Your task to perform on an android device: open app "Walmart Shopping & Grocery" (install if not already installed) Image 0: 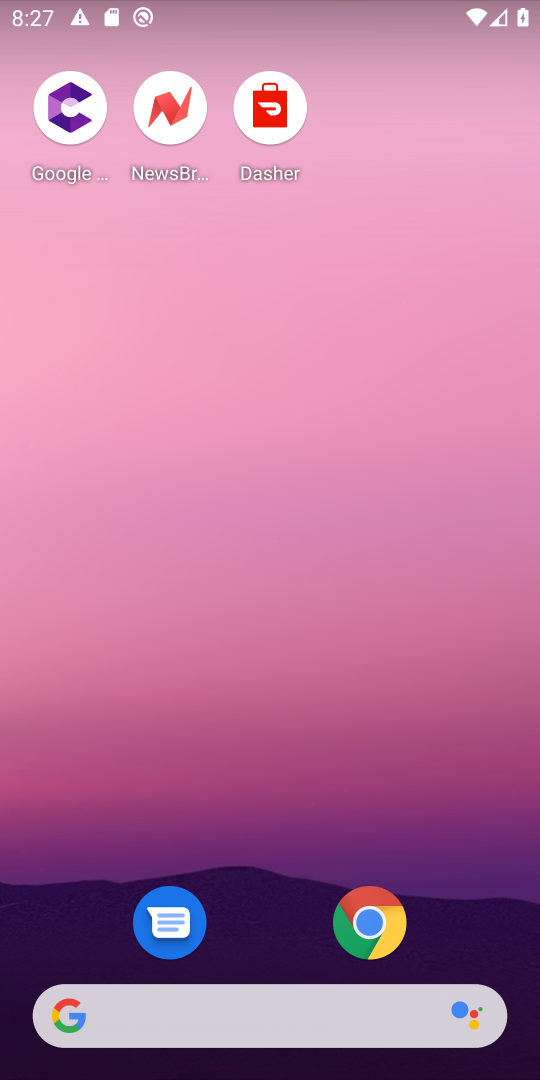
Step 0: drag from (287, 1051) to (298, 196)
Your task to perform on an android device: open app "Walmart Shopping & Grocery" (install if not already installed) Image 1: 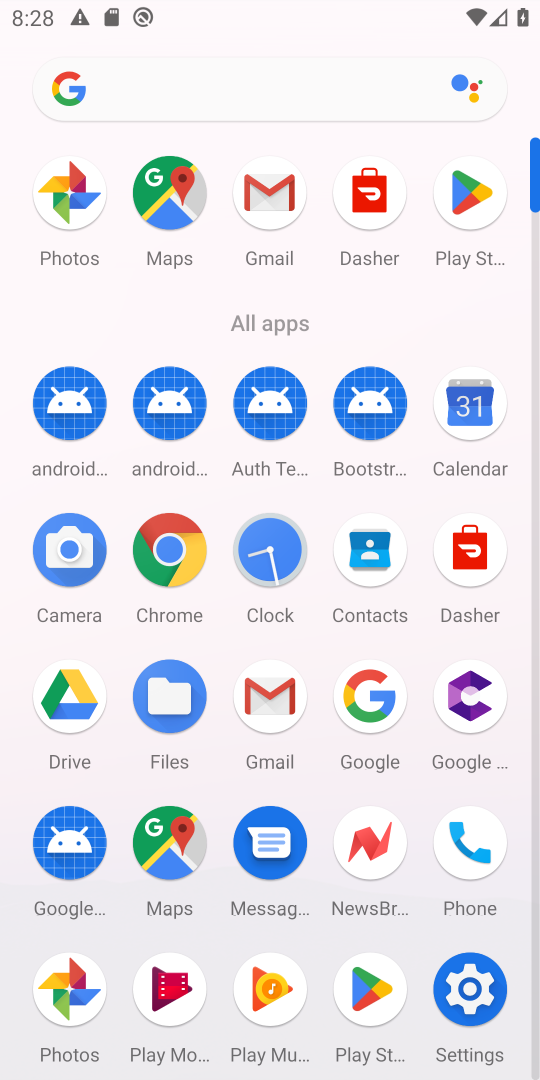
Step 1: click (373, 984)
Your task to perform on an android device: open app "Walmart Shopping & Grocery" (install if not already installed) Image 2: 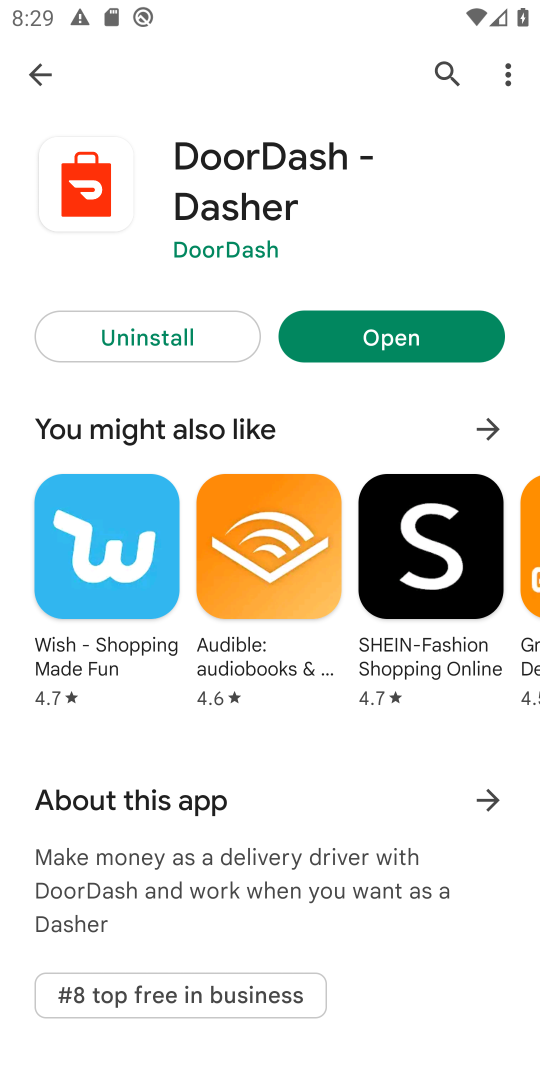
Step 2: click (443, 62)
Your task to perform on an android device: open app "Walmart Shopping & Grocery" (install if not already installed) Image 3: 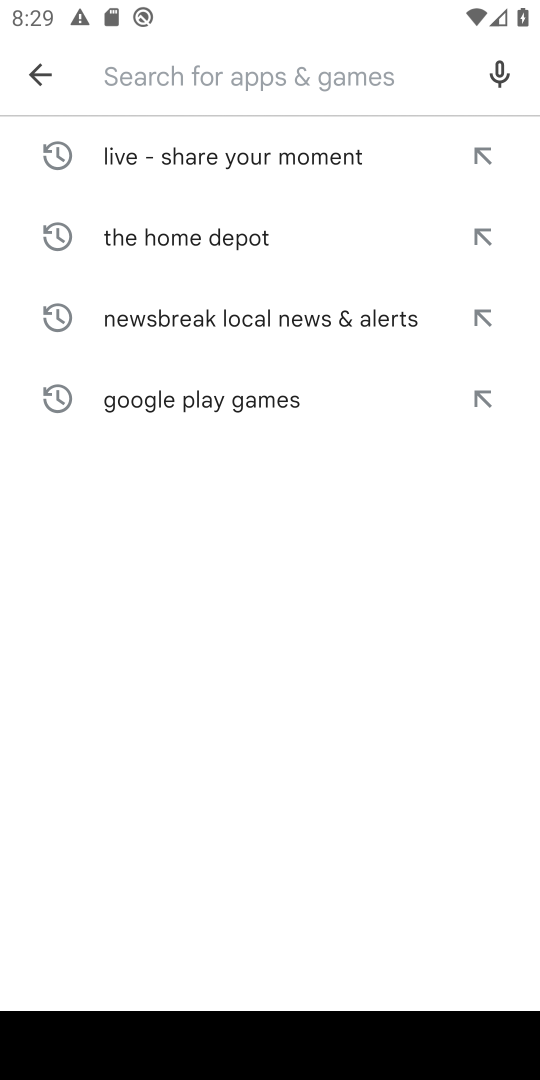
Step 3: type "Walmart Shopping & Grocery"
Your task to perform on an android device: open app "Walmart Shopping & Grocery" (install if not already installed) Image 4: 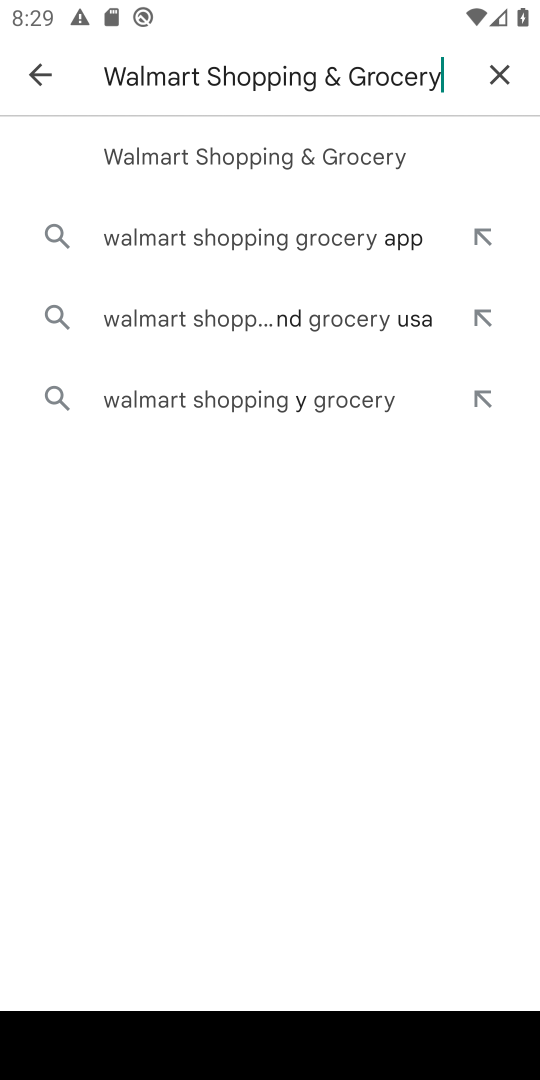
Step 4: type ""
Your task to perform on an android device: open app "Walmart Shopping & Grocery" (install if not already installed) Image 5: 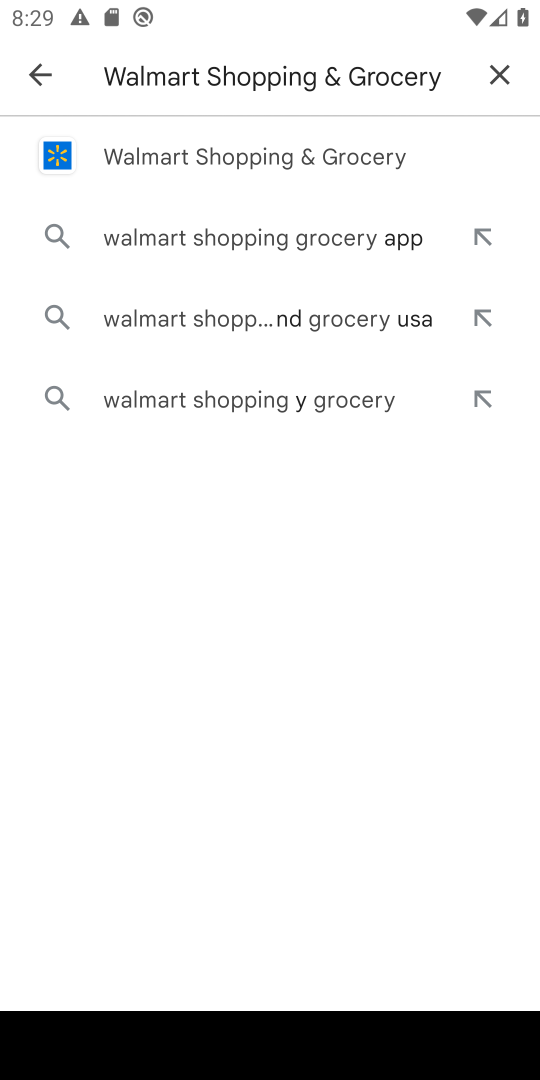
Step 5: click (282, 151)
Your task to perform on an android device: open app "Walmart Shopping & Grocery" (install if not already installed) Image 6: 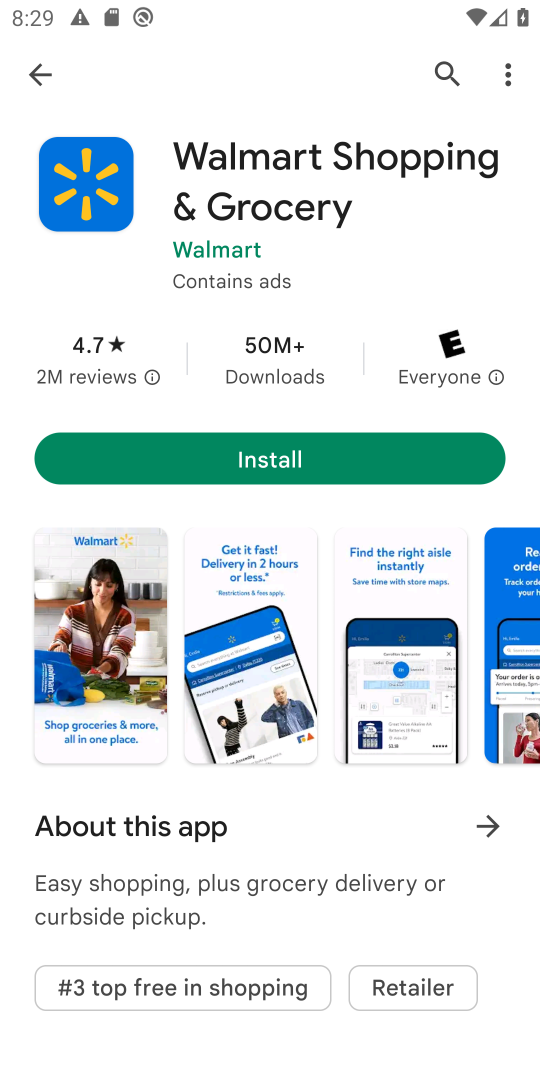
Step 6: click (258, 463)
Your task to perform on an android device: open app "Walmart Shopping & Grocery" (install if not already installed) Image 7: 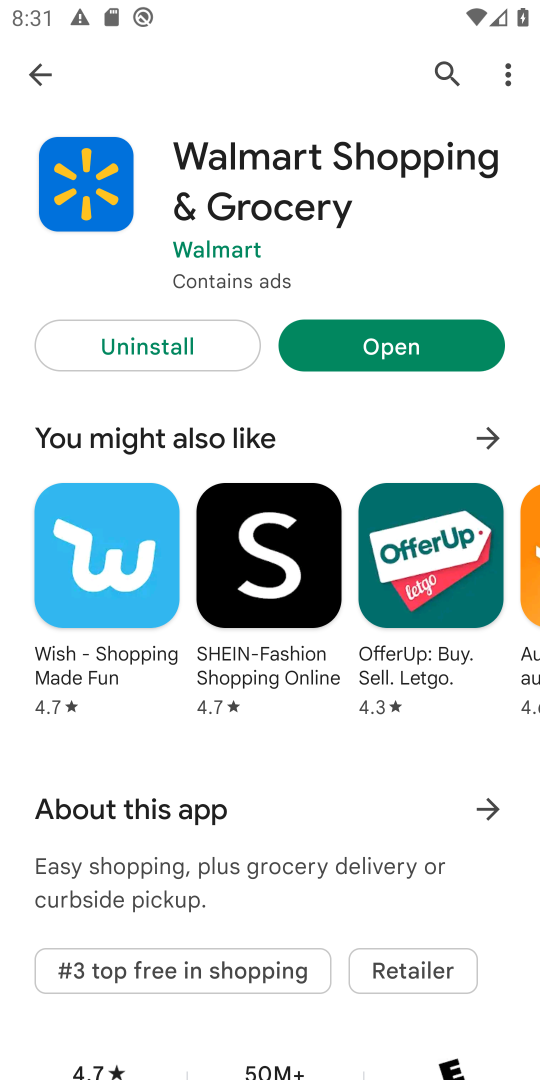
Step 7: task complete